Your task to perform on an android device: turn off data saver in the chrome app Image 0: 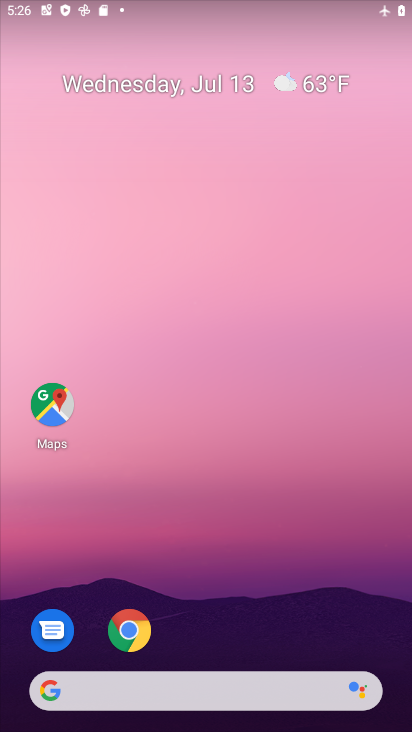
Step 0: press home button
Your task to perform on an android device: turn off data saver in the chrome app Image 1: 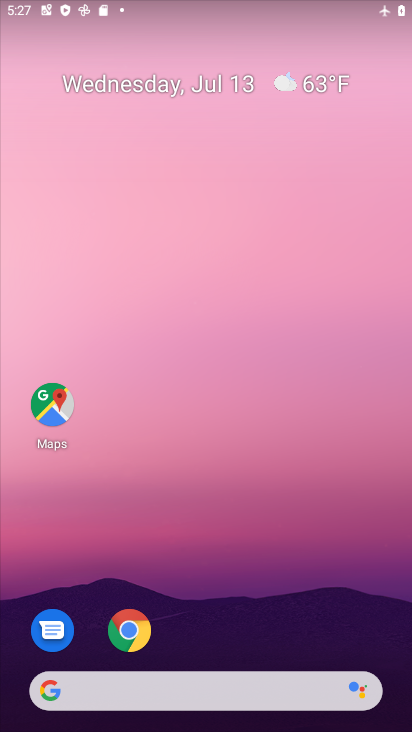
Step 1: drag from (255, 525) to (219, 38)
Your task to perform on an android device: turn off data saver in the chrome app Image 2: 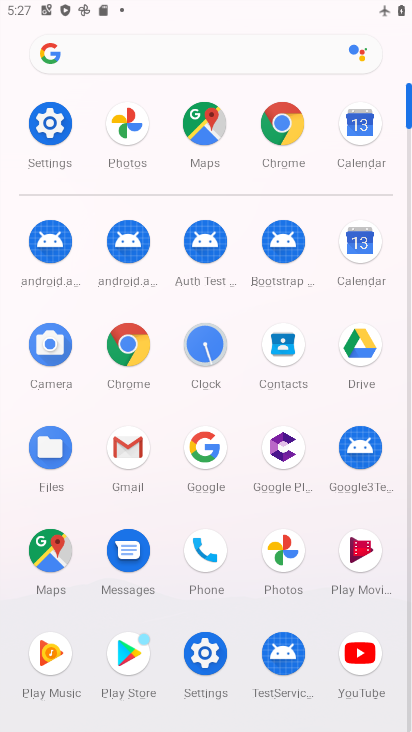
Step 2: click (284, 126)
Your task to perform on an android device: turn off data saver in the chrome app Image 3: 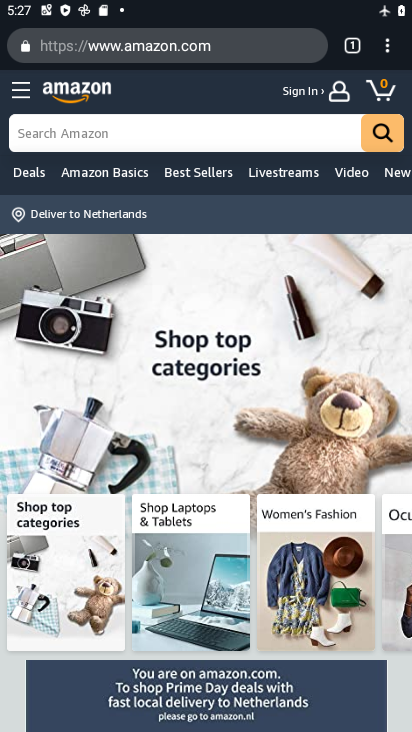
Step 3: drag from (387, 50) to (237, 553)
Your task to perform on an android device: turn off data saver in the chrome app Image 4: 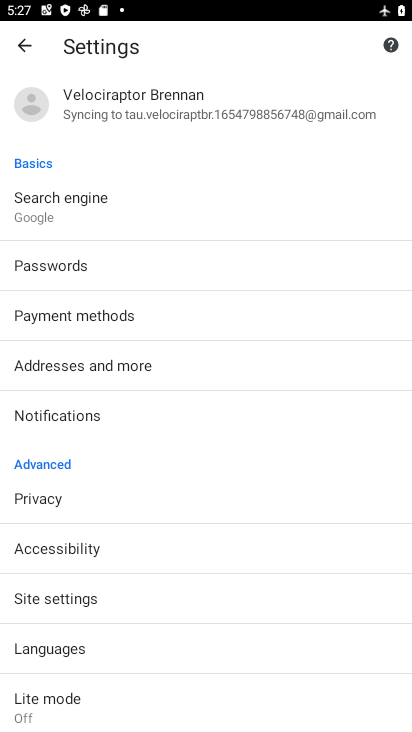
Step 4: click (76, 707)
Your task to perform on an android device: turn off data saver in the chrome app Image 5: 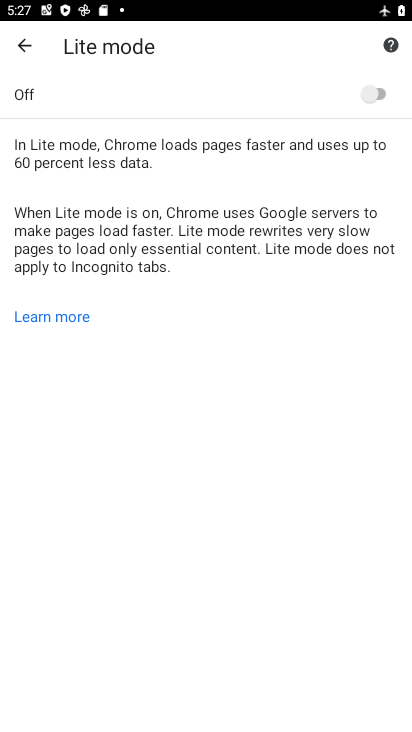
Step 5: task complete